Your task to perform on an android device: turn on data saver in the chrome app Image 0: 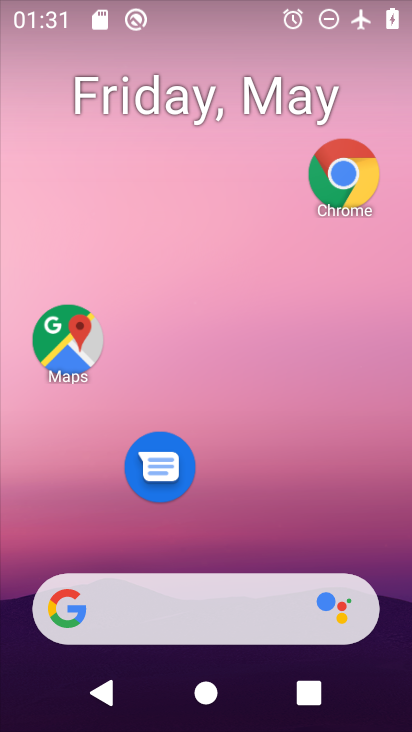
Step 0: drag from (262, 533) to (303, 215)
Your task to perform on an android device: turn on data saver in the chrome app Image 1: 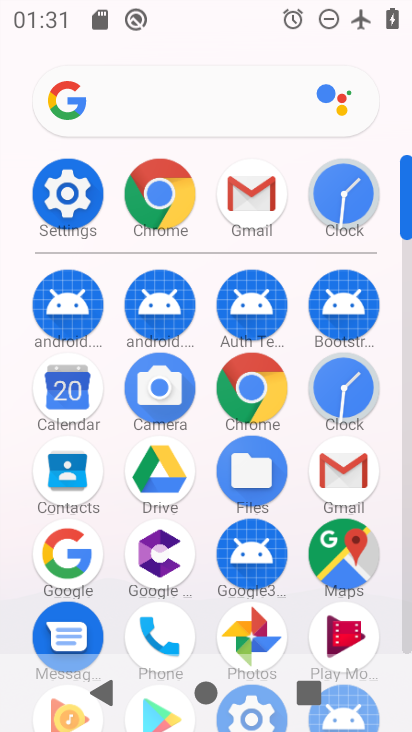
Step 1: click (252, 378)
Your task to perform on an android device: turn on data saver in the chrome app Image 2: 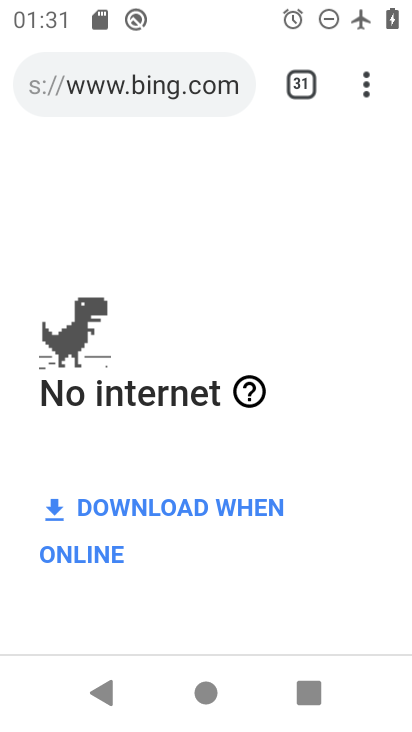
Step 2: click (370, 85)
Your task to perform on an android device: turn on data saver in the chrome app Image 3: 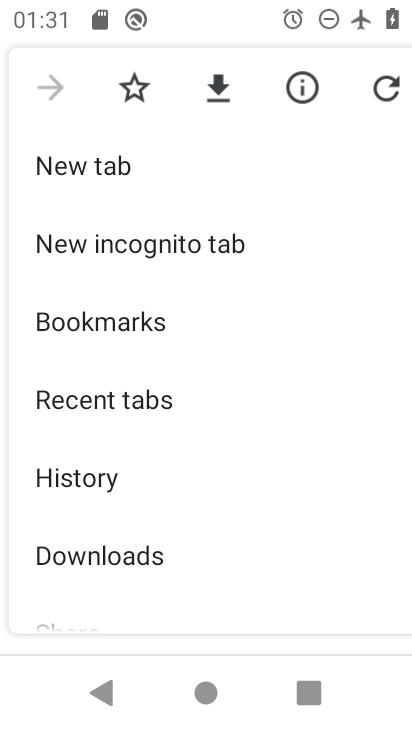
Step 3: drag from (243, 519) to (246, 227)
Your task to perform on an android device: turn on data saver in the chrome app Image 4: 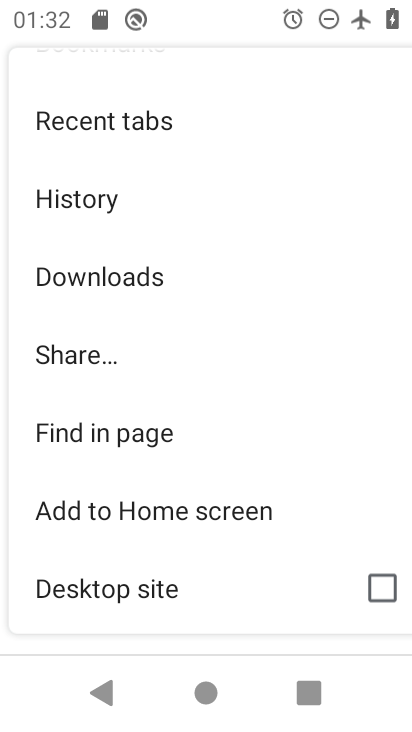
Step 4: drag from (143, 551) to (191, 241)
Your task to perform on an android device: turn on data saver in the chrome app Image 5: 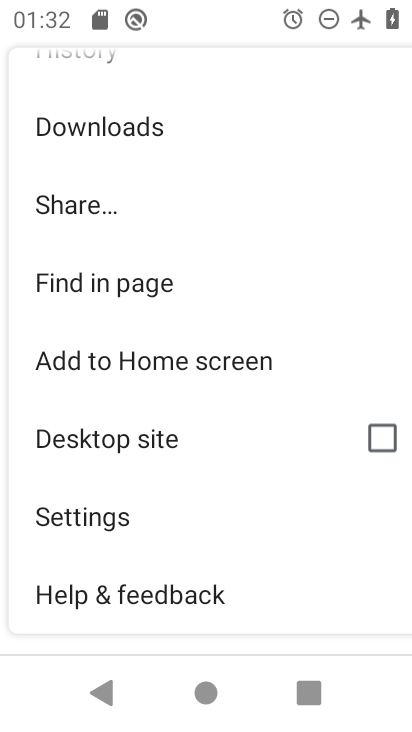
Step 5: click (95, 517)
Your task to perform on an android device: turn on data saver in the chrome app Image 6: 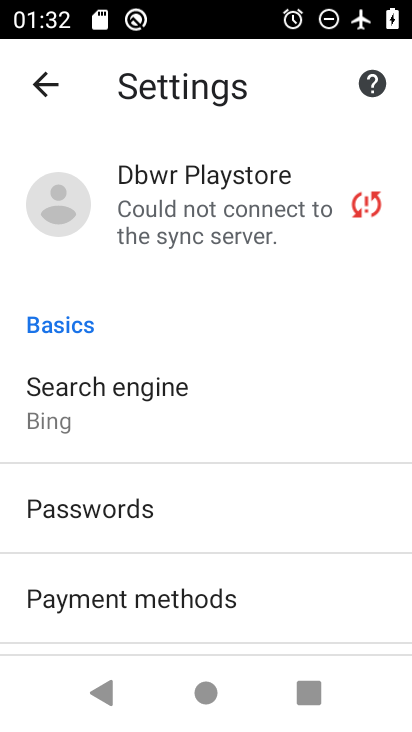
Step 6: drag from (198, 579) to (249, 283)
Your task to perform on an android device: turn on data saver in the chrome app Image 7: 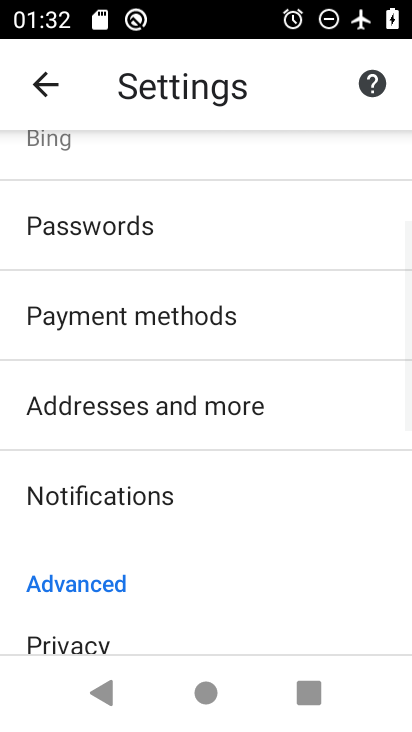
Step 7: drag from (158, 577) to (286, 260)
Your task to perform on an android device: turn on data saver in the chrome app Image 8: 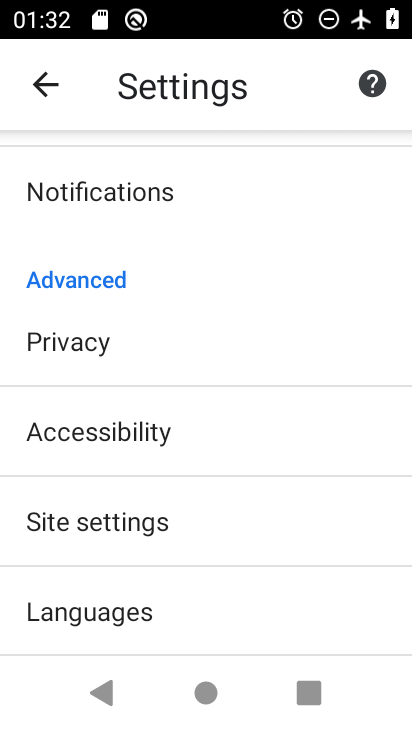
Step 8: drag from (171, 545) to (234, 307)
Your task to perform on an android device: turn on data saver in the chrome app Image 9: 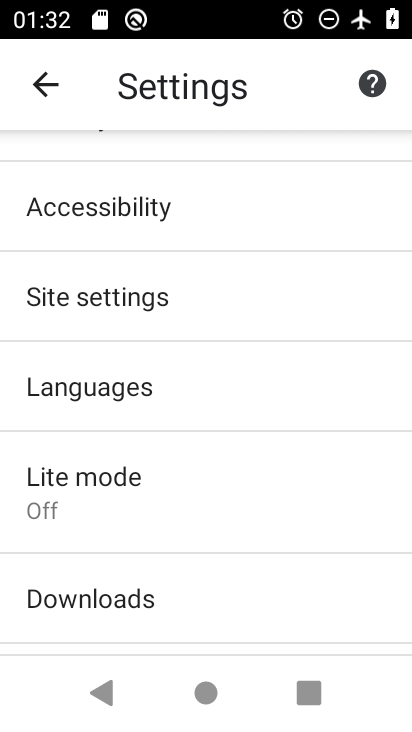
Step 9: click (140, 491)
Your task to perform on an android device: turn on data saver in the chrome app Image 10: 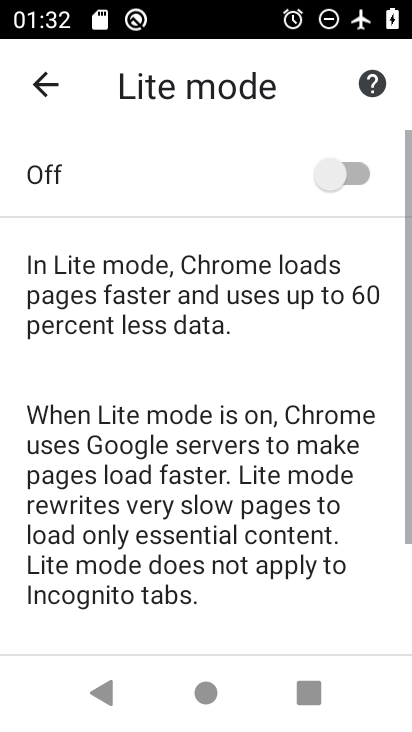
Step 10: click (343, 166)
Your task to perform on an android device: turn on data saver in the chrome app Image 11: 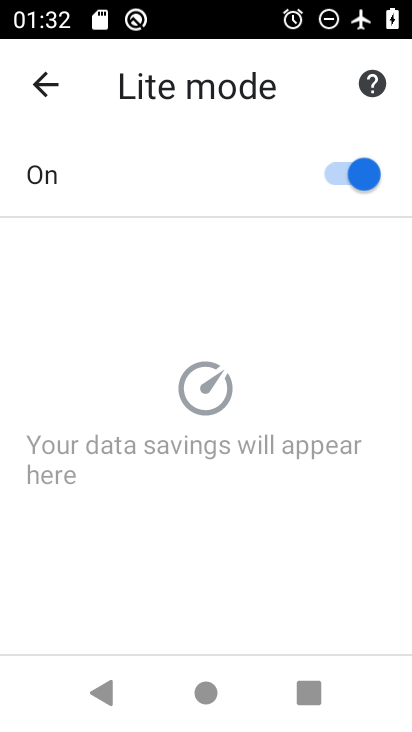
Step 11: task complete